Your task to perform on an android device: toggle notifications settings in the gmail app Image 0: 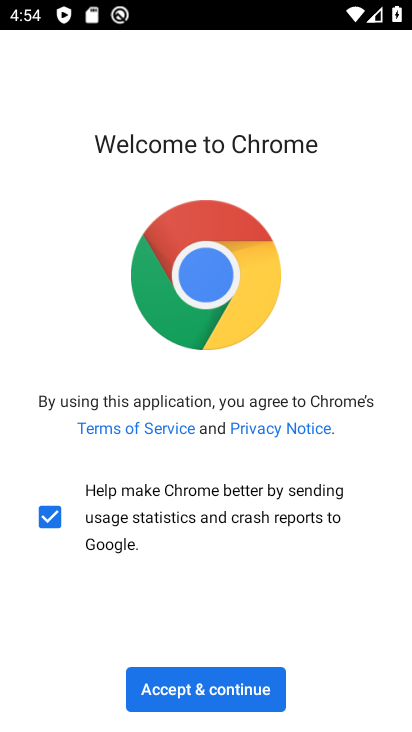
Step 0: press home button
Your task to perform on an android device: toggle notifications settings in the gmail app Image 1: 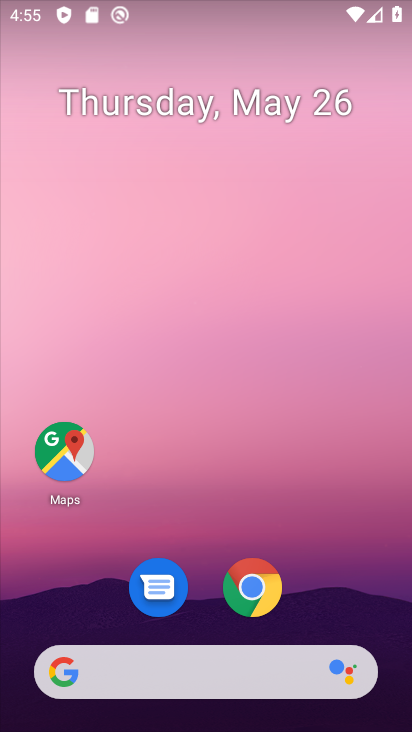
Step 1: drag from (318, 565) to (238, 167)
Your task to perform on an android device: toggle notifications settings in the gmail app Image 2: 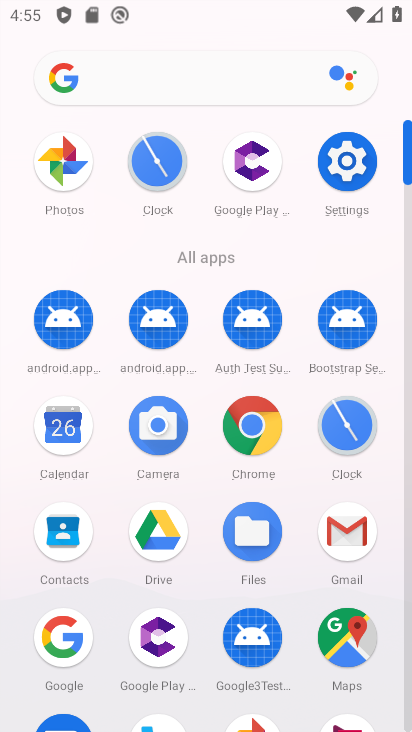
Step 2: click (347, 529)
Your task to perform on an android device: toggle notifications settings in the gmail app Image 3: 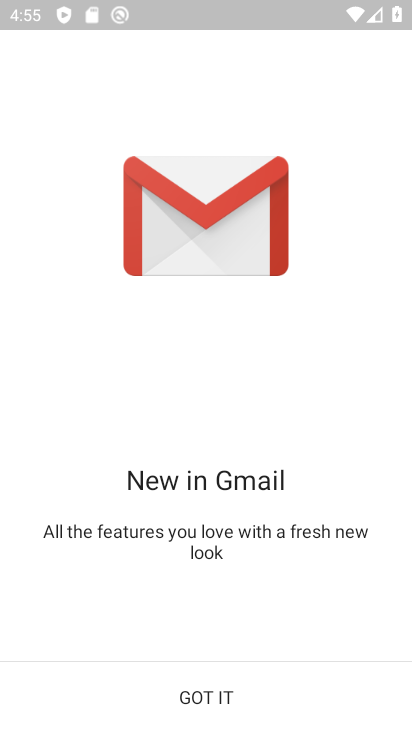
Step 3: click (205, 692)
Your task to perform on an android device: toggle notifications settings in the gmail app Image 4: 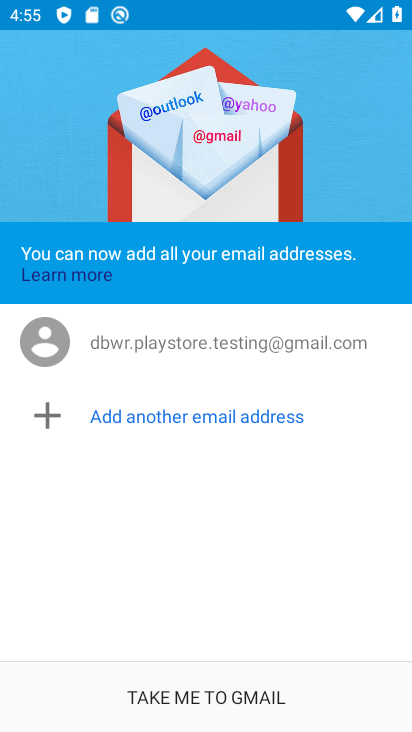
Step 4: click (205, 692)
Your task to perform on an android device: toggle notifications settings in the gmail app Image 5: 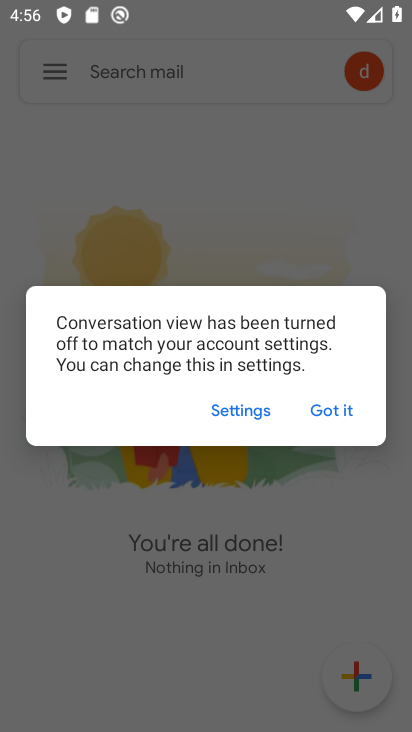
Step 5: click (336, 395)
Your task to perform on an android device: toggle notifications settings in the gmail app Image 6: 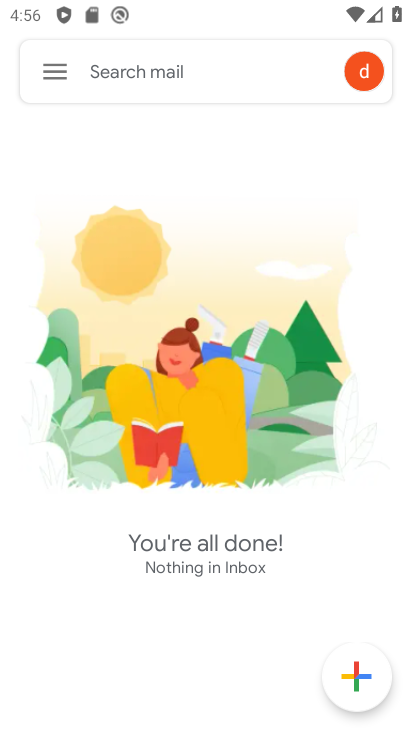
Step 6: click (60, 70)
Your task to perform on an android device: toggle notifications settings in the gmail app Image 7: 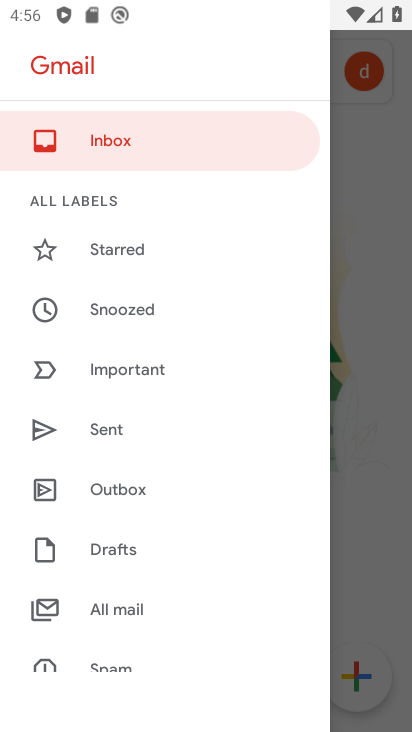
Step 7: drag from (109, 521) to (183, 422)
Your task to perform on an android device: toggle notifications settings in the gmail app Image 8: 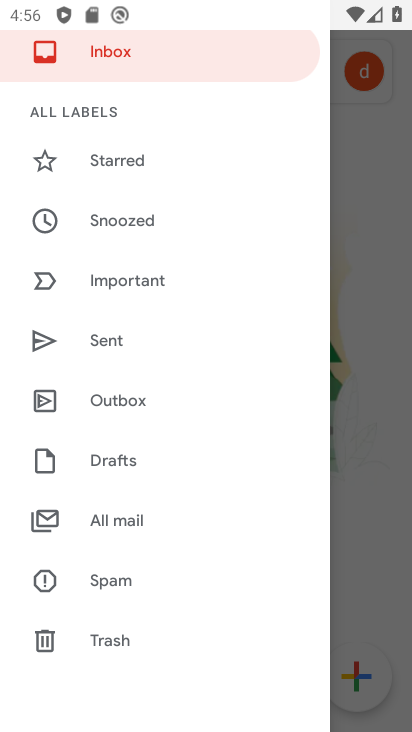
Step 8: drag from (105, 556) to (179, 461)
Your task to perform on an android device: toggle notifications settings in the gmail app Image 9: 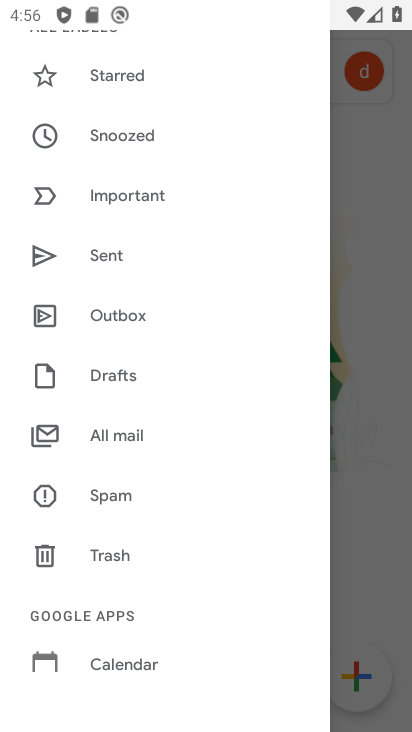
Step 9: drag from (117, 575) to (195, 491)
Your task to perform on an android device: toggle notifications settings in the gmail app Image 10: 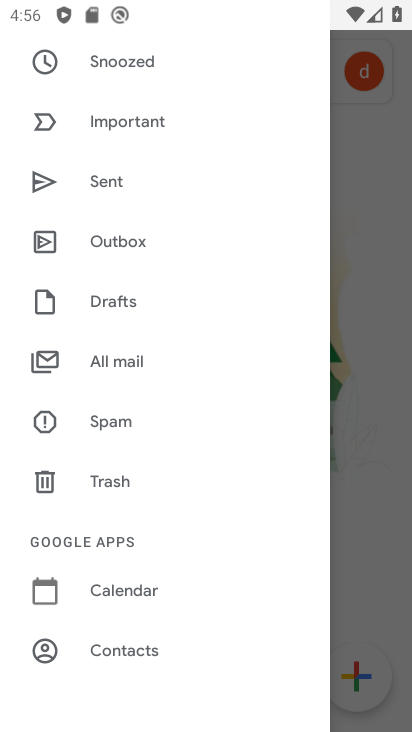
Step 10: drag from (123, 610) to (221, 486)
Your task to perform on an android device: toggle notifications settings in the gmail app Image 11: 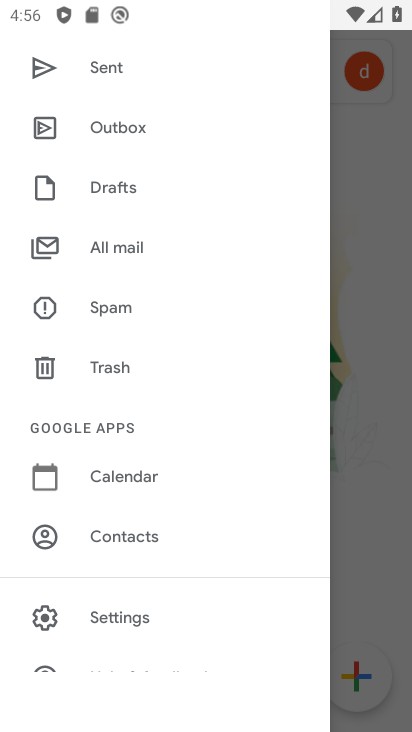
Step 11: drag from (129, 595) to (202, 486)
Your task to perform on an android device: toggle notifications settings in the gmail app Image 12: 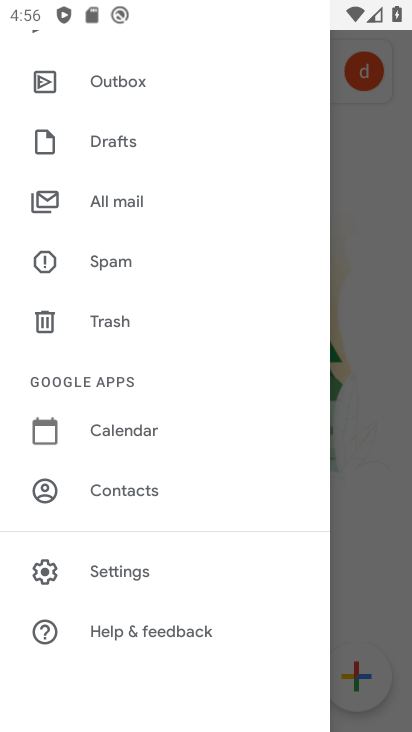
Step 12: click (113, 580)
Your task to perform on an android device: toggle notifications settings in the gmail app Image 13: 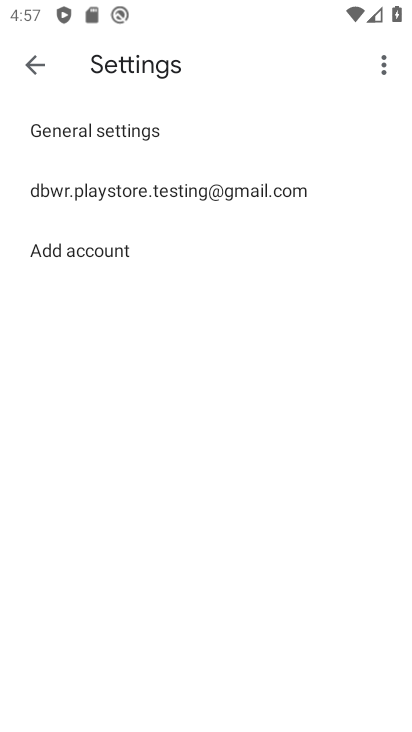
Step 13: click (195, 192)
Your task to perform on an android device: toggle notifications settings in the gmail app Image 14: 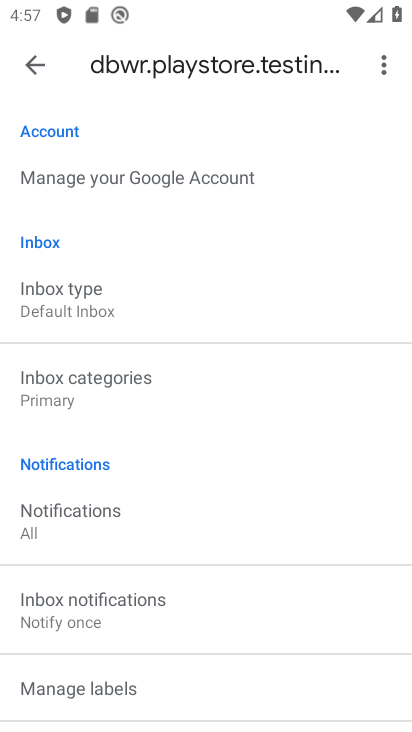
Step 14: drag from (118, 422) to (176, 327)
Your task to perform on an android device: toggle notifications settings in the gmail app Image 15: 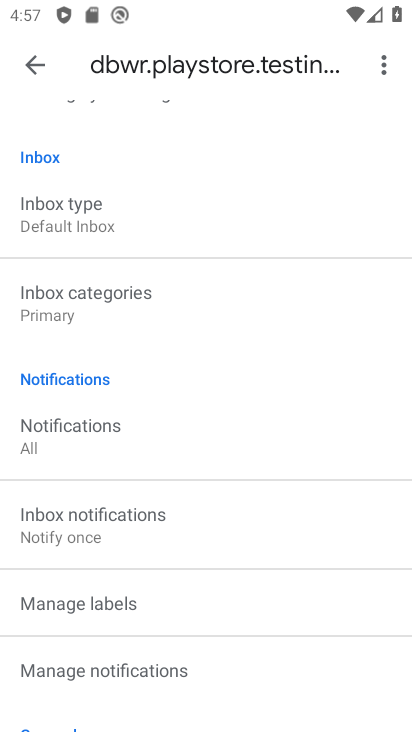
Step 15: drag from (95, 453) to (175, 364)
Your task to perform on an android device: toggle notifications settings in the gmail app Image 16: 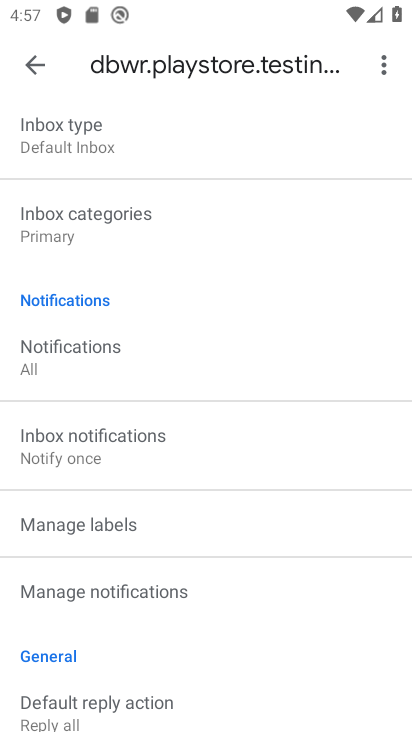
Step 16: drag from (106, 474) to (185, 391)
Your task to perform on an android device: toggle notifications settings in the gmail app Image 17: 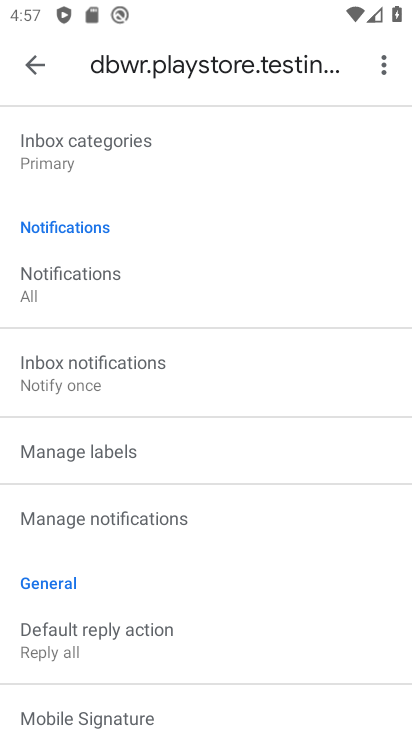
Step 17: click (85, 531)
Your task to perform on an android device: toggle notifications settings in the gmail app Image 18: 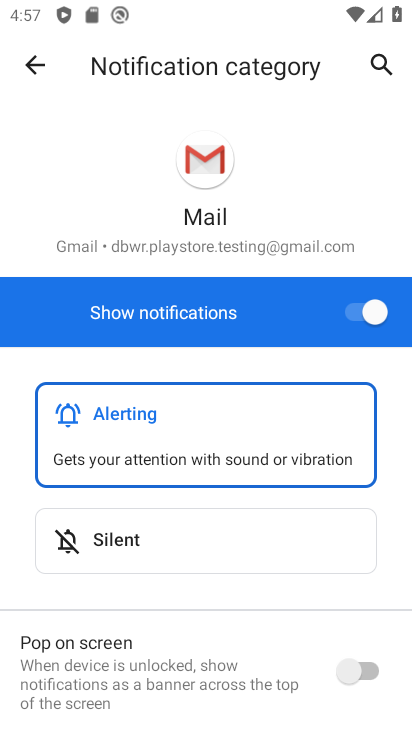
Step 18: click (357, 317)
Your task to perform on an android device: toggle notifications settings in the gmail app Image 19: 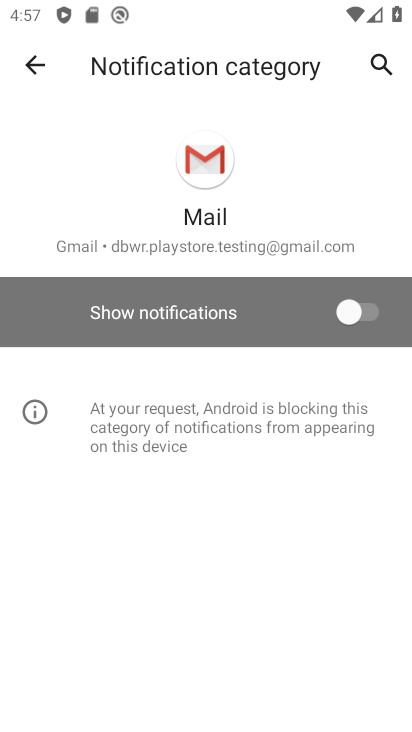
Step 19: task complete